Your task to perform on an android device: turn off javascript in the chrome app Image 0: 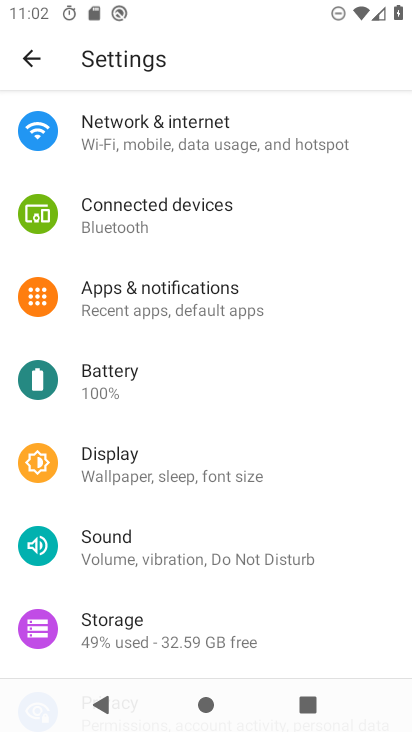
Step 0: press home button
Your task to perform on an android device: turn off javascript in the chrome app Image 1: 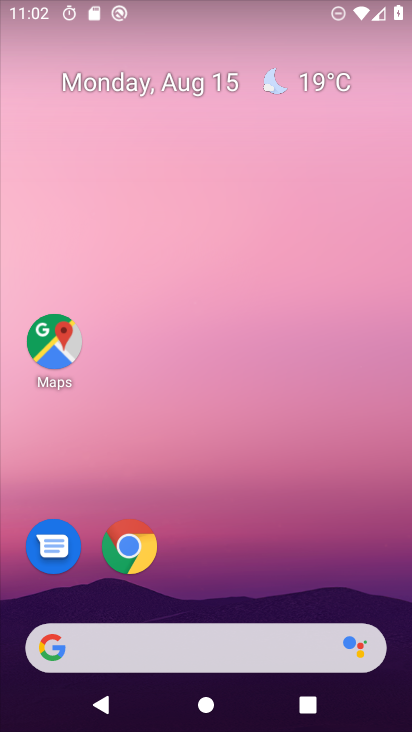
Step 1: click (123, 545)
Your task to perform on an android device: turn off javascript in the chrome app Image 2: 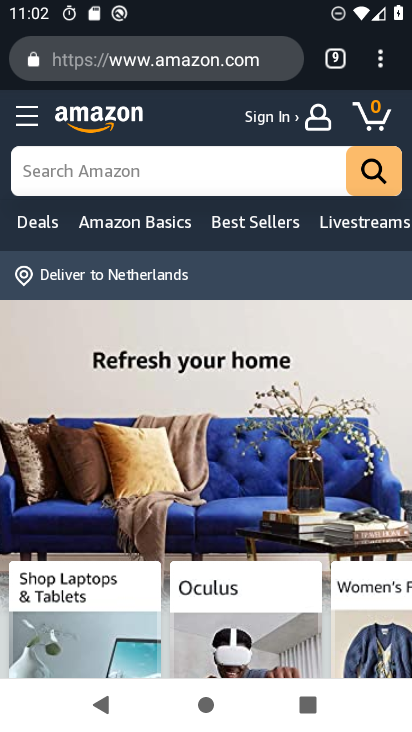
Step 2: click (380, 68)
Your task to perform on an android device: turn off javascript in the chrome app Image 3: 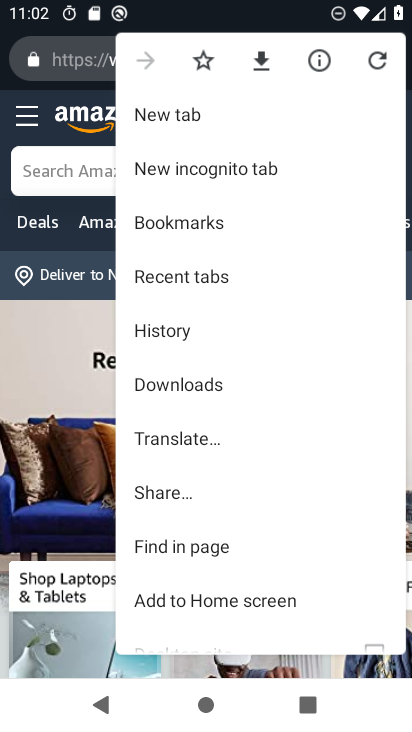
Step 3: drag from (203, 571) to (206, 242)
Your task to perform on an android device: turn off javascript in the chrome app Image 4: 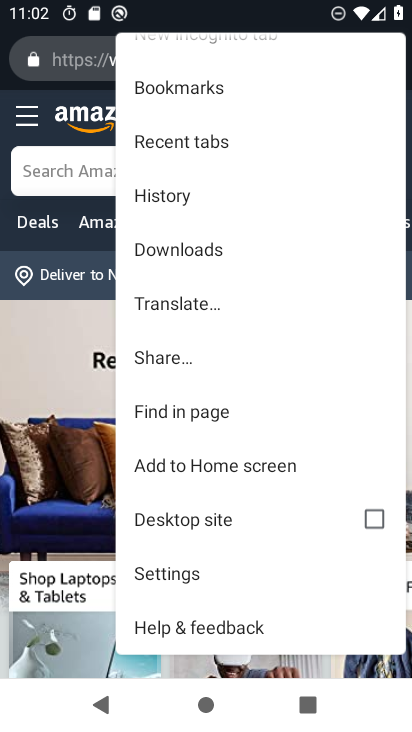
Step 4: click (183, 572)
Your task to perform on an android device: turn off javascript in the chrome app Image 5: 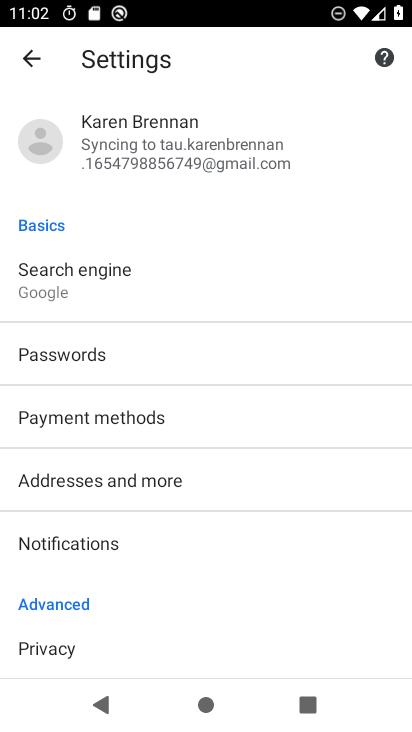
Step 5: drag from (58, 617) to (87, 319)
Your task to perform on an android device: turn off javascript in the chrome app Image 6: 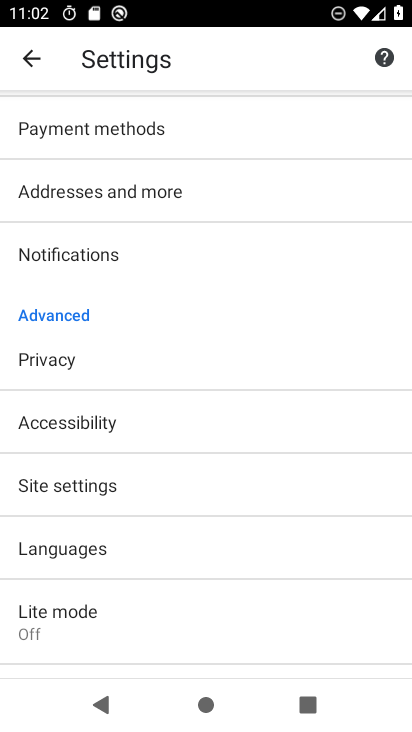
Step 6: click (84, 488)
Your task to perform on an android device: turn off javascript in the chrome app Image 7: 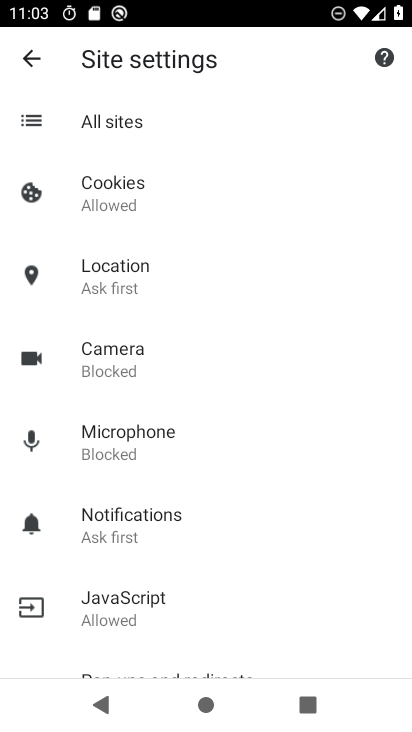
Step 7: click (119, 611)
Your task to perform on an android device: turn off javascript in the chrome app Image 8: 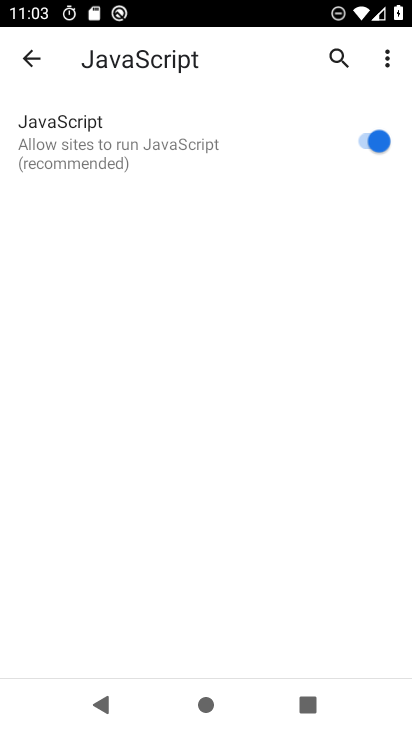
Step 8: click (368, 139)
Your task to perform on an android device: turn off javascript in the chrome app Image 9: 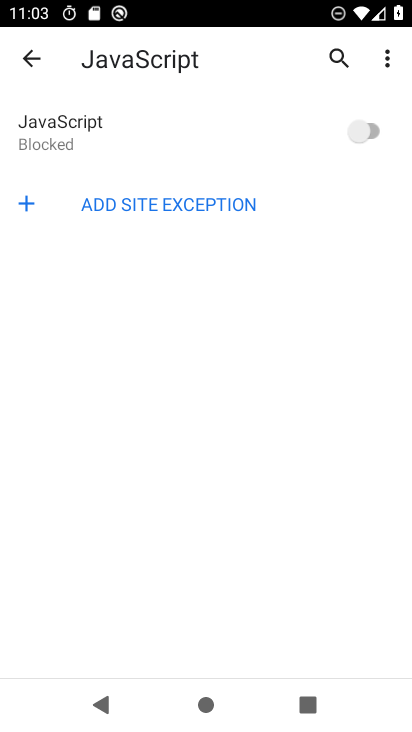
Step 9: task complete